Your task to perform on an android device: change alarm snooze length Image 0: 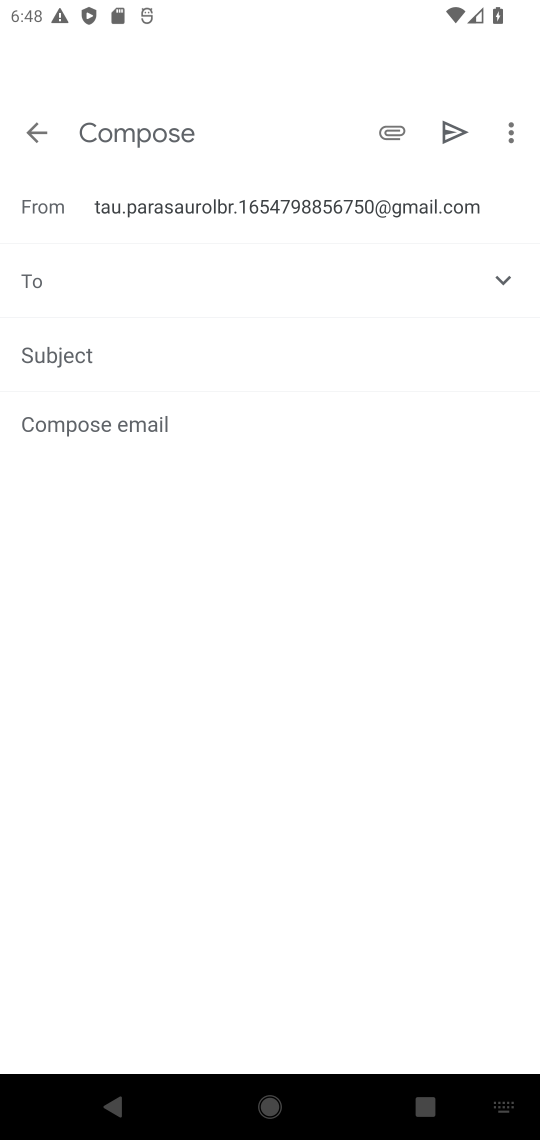
Step 0: press home button
Your task to perform on an android device: change alarm snooze length Image 1: 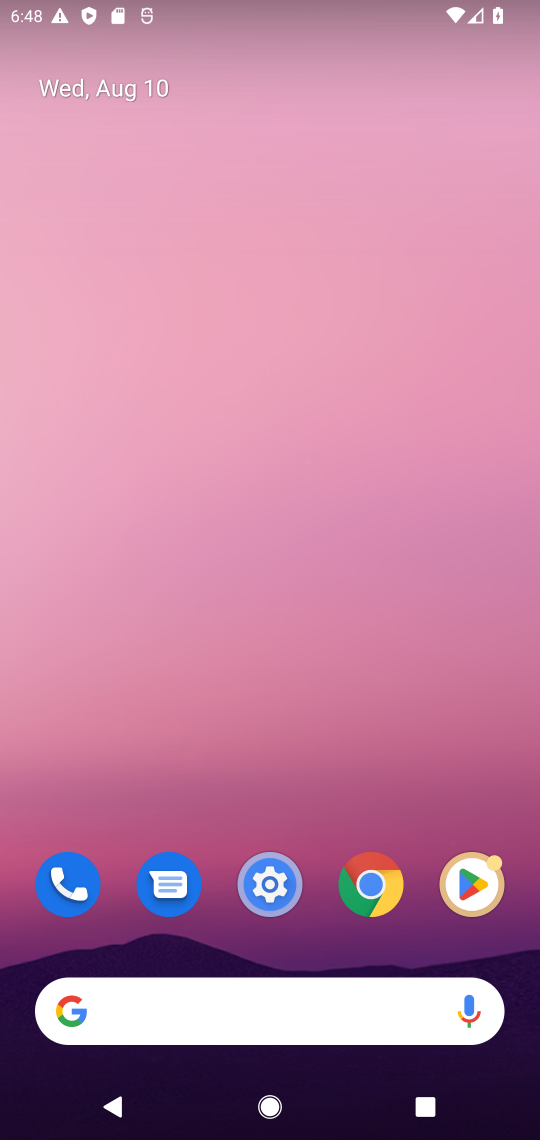
Step 1: drag from (96, 1069) to (323, 420)
Your task to perform on an android device: change alarm snooze length Image 2: 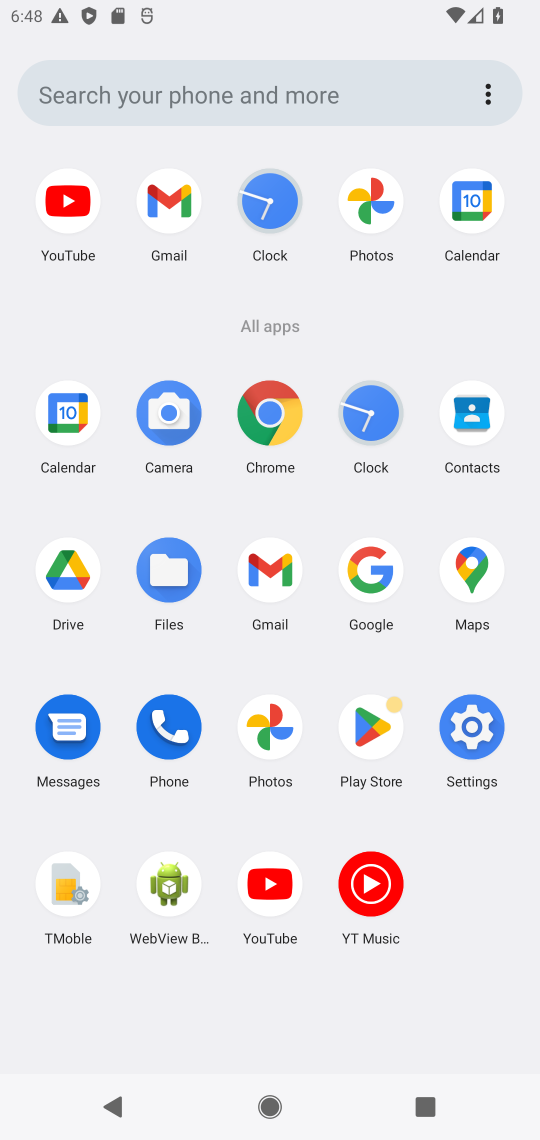
Step 2: click (460, 736)
Your task to perform on an android device: change alarm snooze length Image 3: 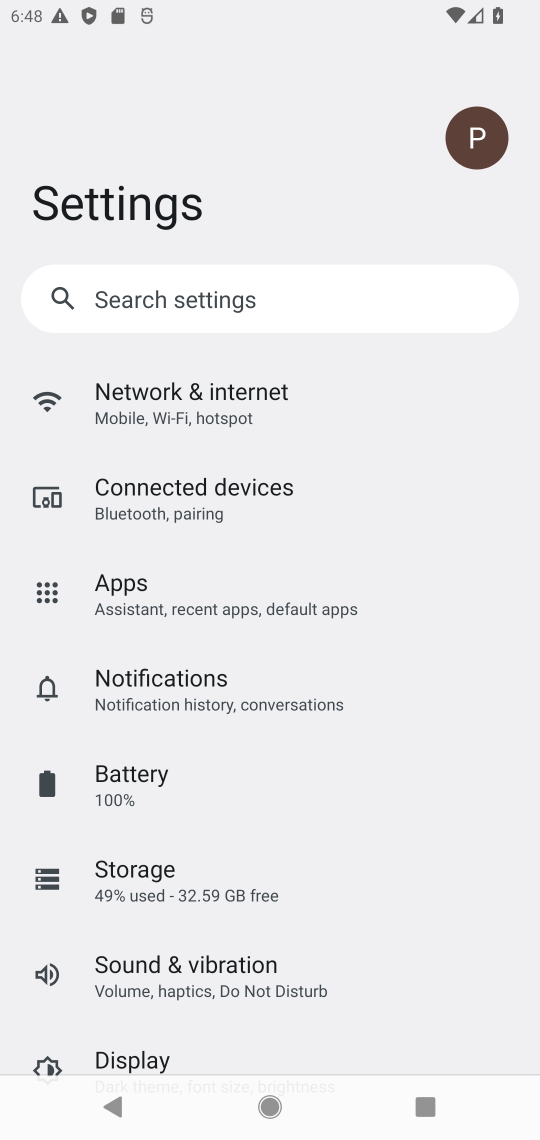
Step 3: press back button
Your task to perform on an android device: change alarm snooze length Image 4: 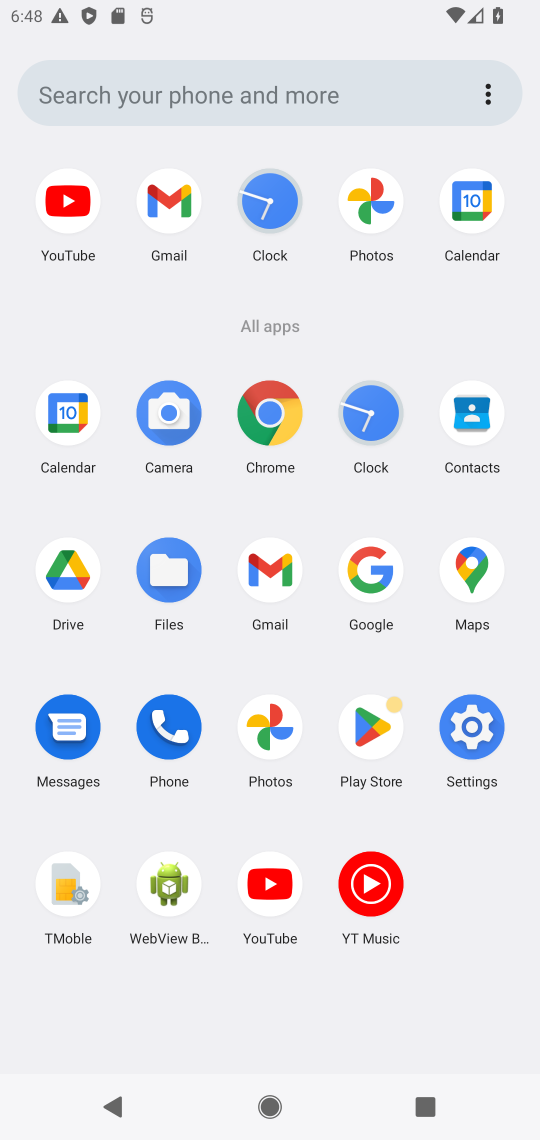
Step 4: click (362, 443)
Your task to perform on an android device: change alarm snooze length Image 5: 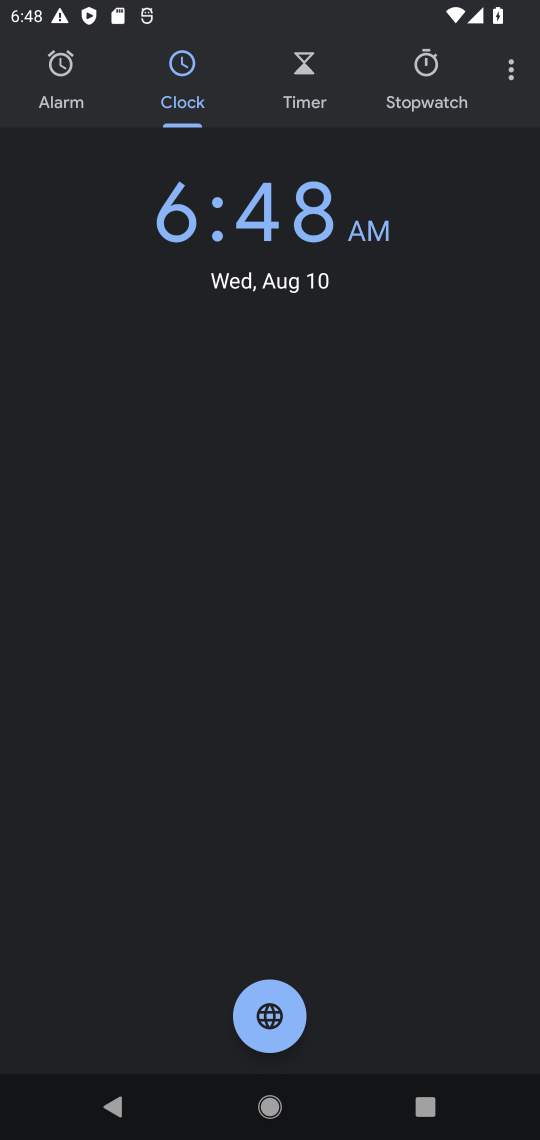
Step 5: click (66, 103)
Your task to perform on an android device: change alarm snooze length Image 6: 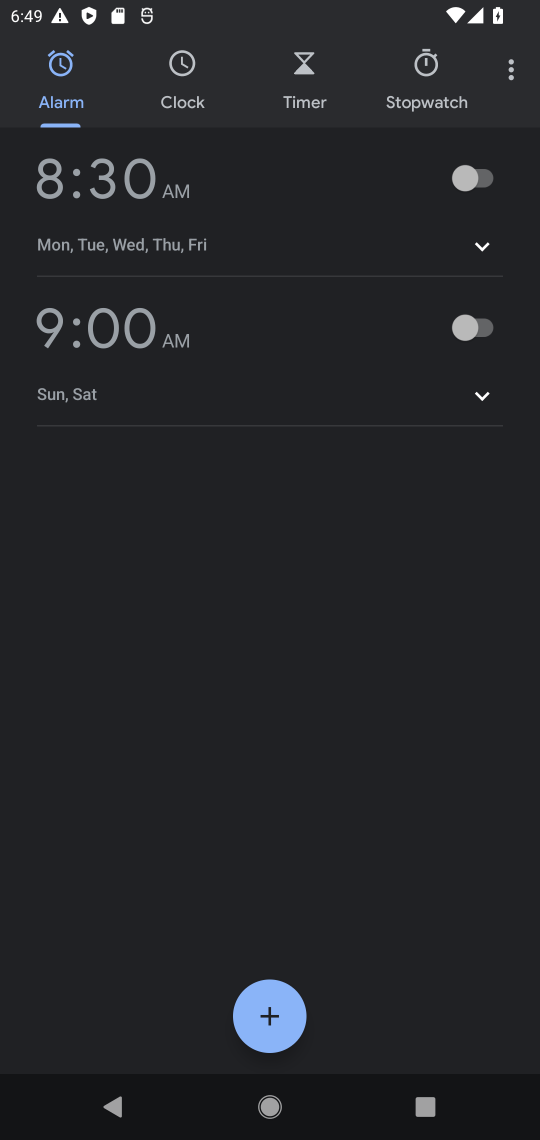
Step 6: click (521, 80)
Your task to perform on an android device: change alarm snooze length Image 7: 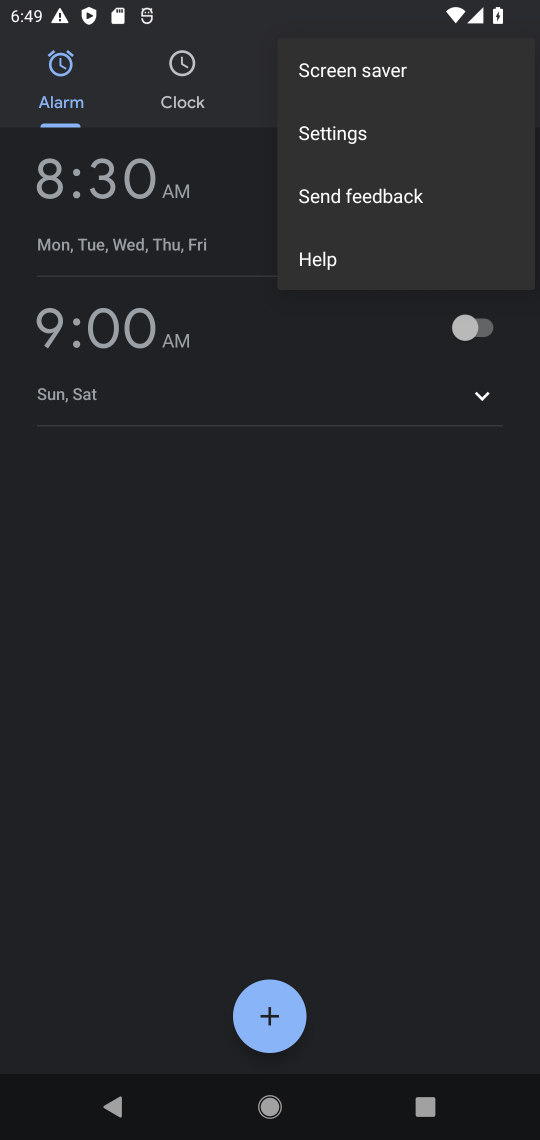
Step 7: click (342, 133)
Your task to perform on an android device: change alarm snooze length Image 8: 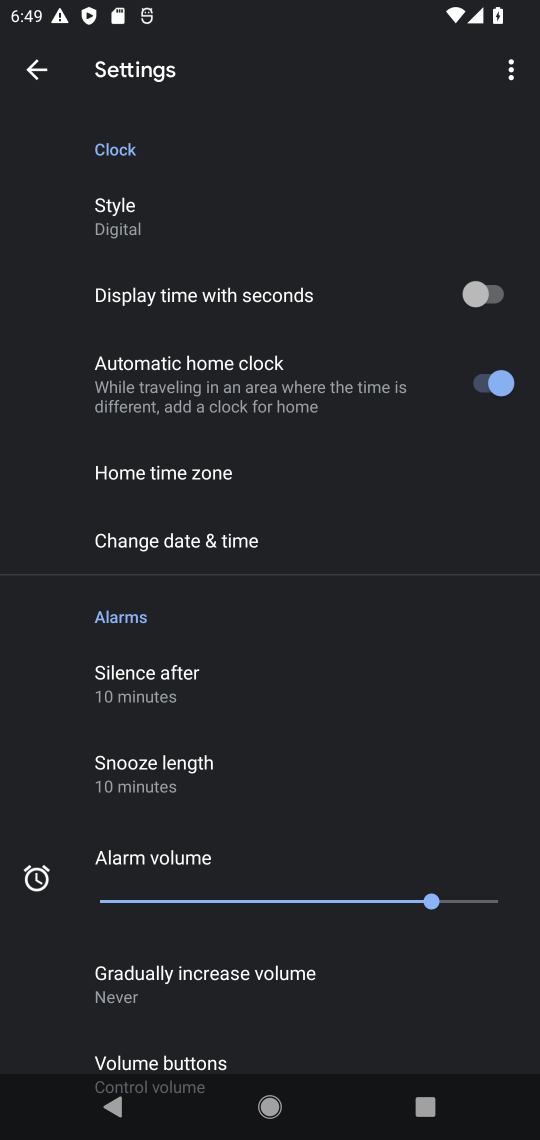
Step 8: click (124, 792)
Your task to perform on an android device: change alarm snooze length Image 9: 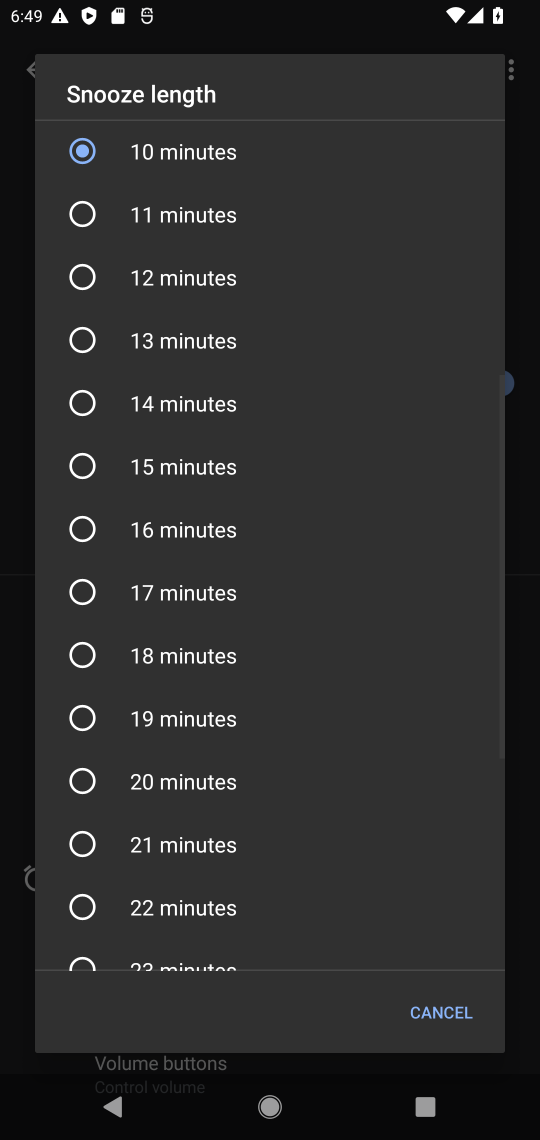
Step 9: click (83, 468)
Your task to perform on an android device: change alarm snooze length Image 10: 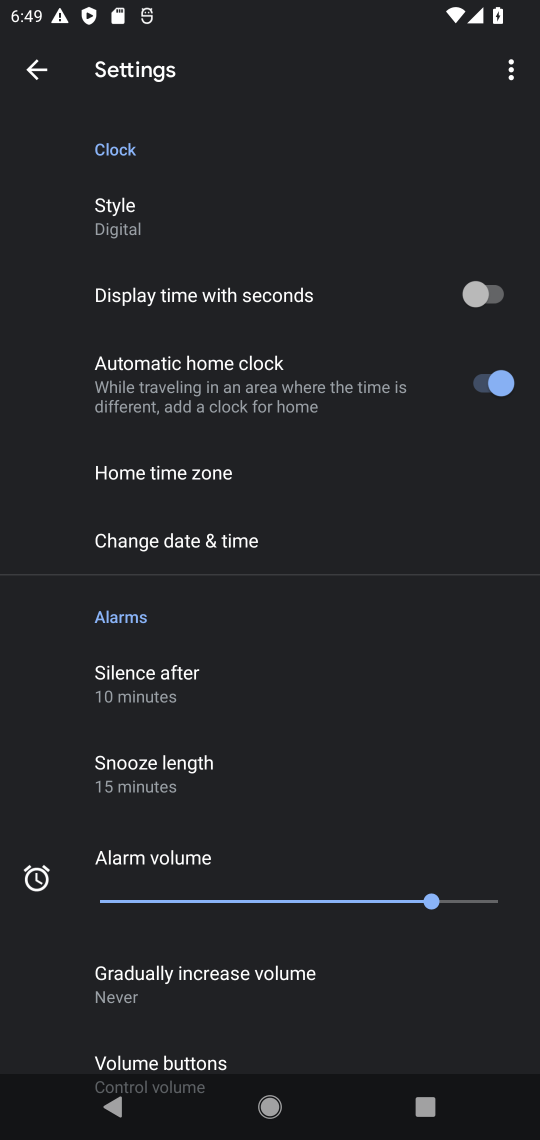
Step 10: task complete